Your task to perform on an android device: Open Wikipedia Image 0: 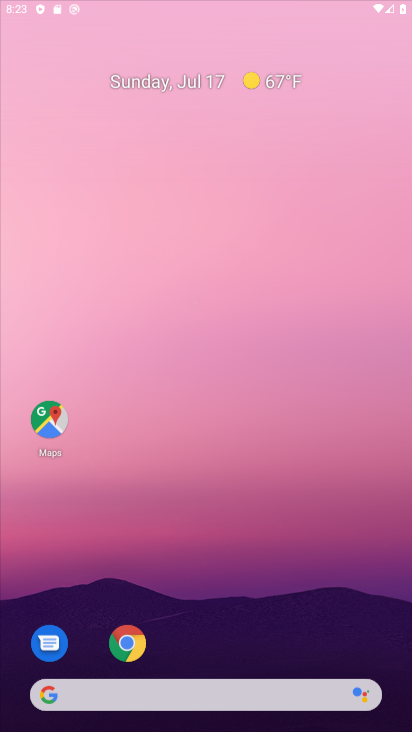
Step 0: click (133, 105)
Your task to perform on an android device: Open Wikipedia Image 1: 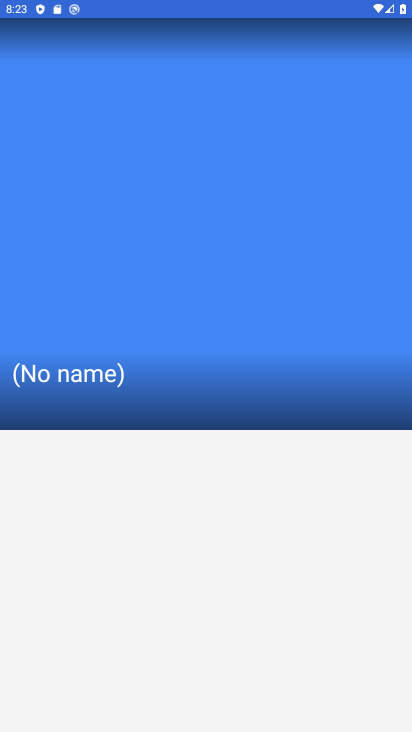
Step 1: click (129, 643)
Your task to perform on an android device: Open Wikipedia Image 2: 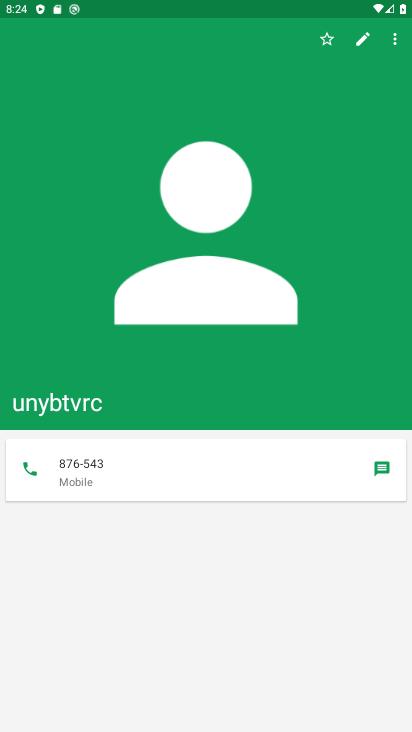
Step 2: press home button
Your task to perform on an android device: Open Wikipedia Image 3: 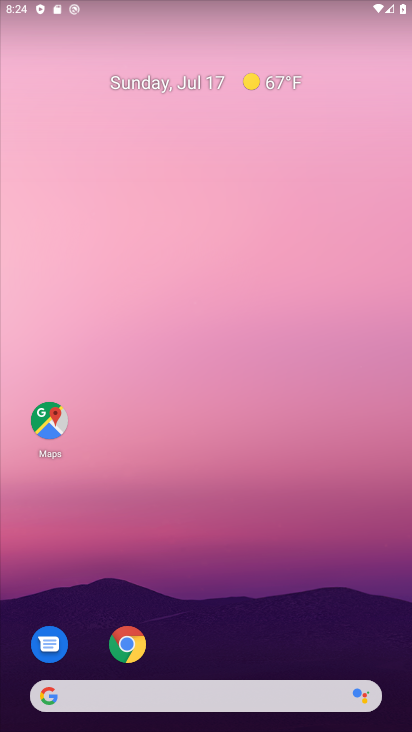
Step 3: click (133, 654)
Your task to perform on an android device: Open Wikipedia Image 4: 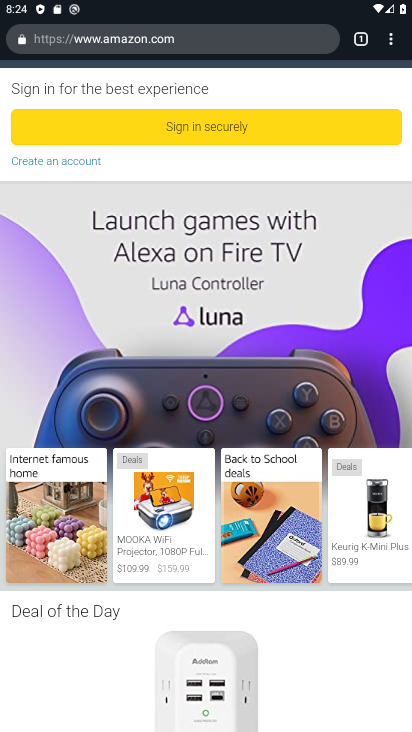
Step 4: click (393, 44)
Your task to perform on an android device: Open Wikipedia Image 5: 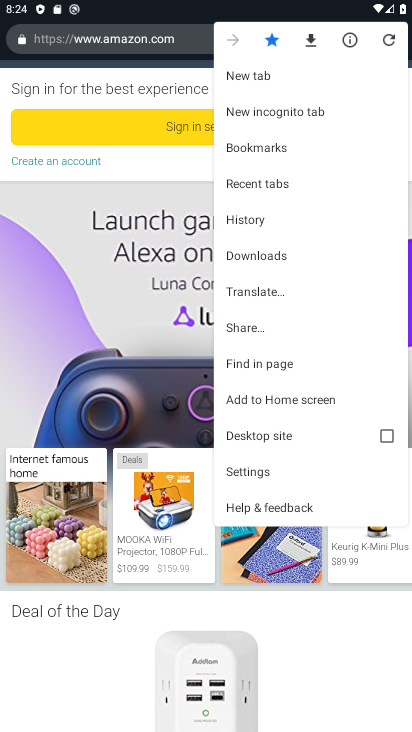
Step 5: click (259, 78)
Your task to perform on an android device: Open Wikipedia Image 6: 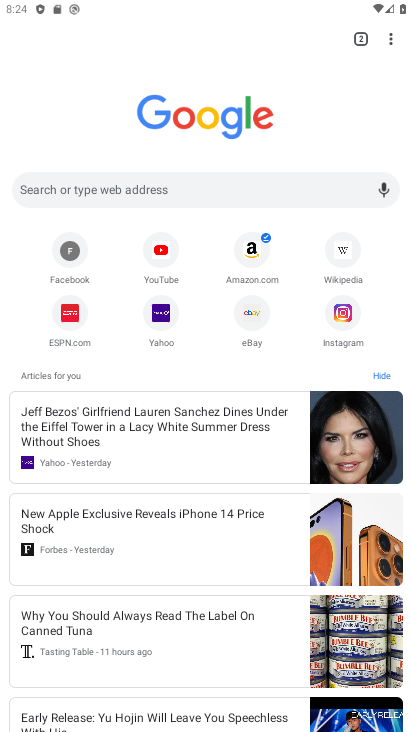
Step 6: click (342, 250)
Your task to perform on an android device: Open Wikipedia Image 7: 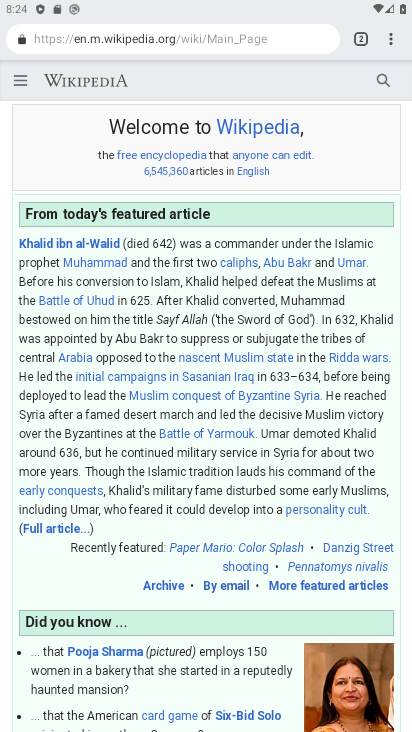
Step 7: task complete